Your task to perform on an android device: Open Google Image 0: 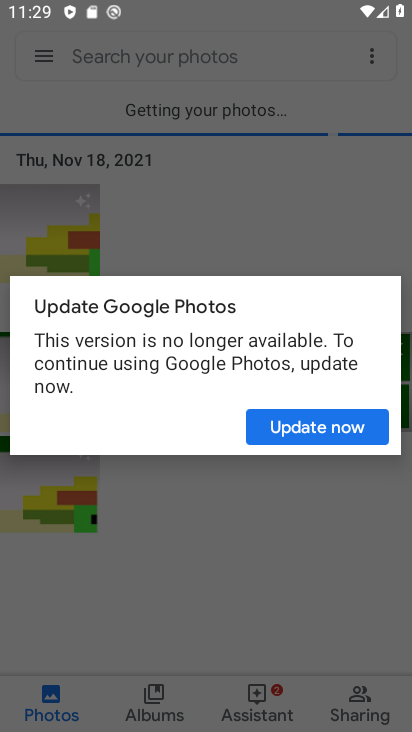
Step 0: press home button
Your task to perform on an android device: Open Google Image 1: 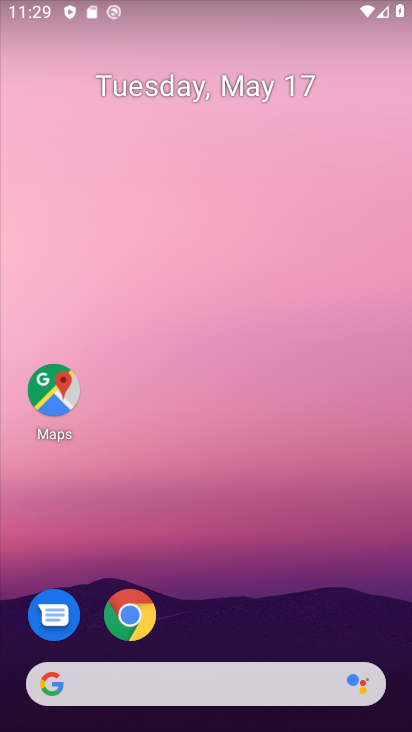
Step 1: drag from (275, 630) to (252, 232)
Your task to perform on an android device: Open Google Image 2: 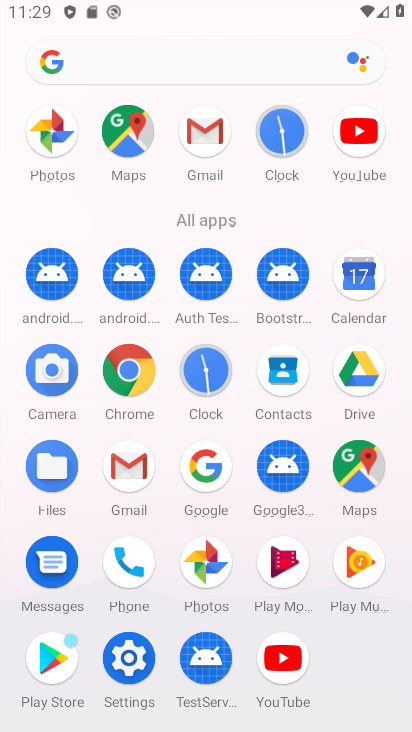
Step 2: click (206, 466)
Your task to perform on an android device: Open Google Image 3: 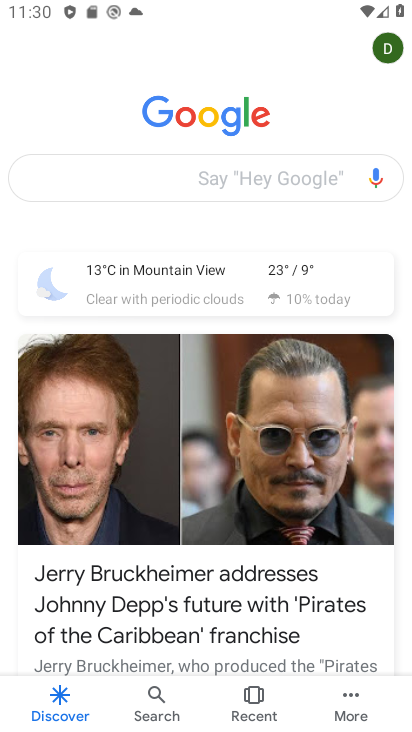
Step 3: task complete